Your task to perform on an android device: Toggle the flashlight Image 0: 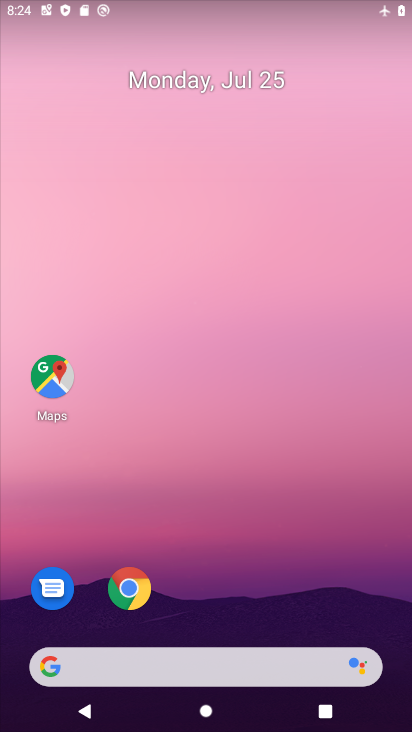
Step 0: drag from (124, 6) to (217, 427)
Your task to perform on an android device: Toggle the flashlight Image 1: 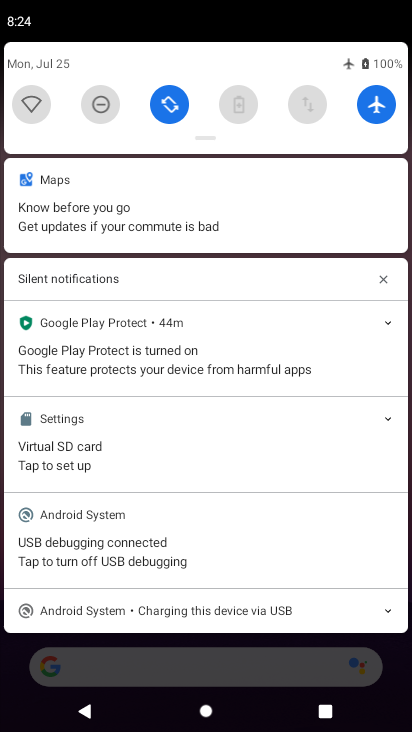
Step 1: drag from (287, 77) to (338, 455)
Your task to perform on an android device: Toggle the flashlight Image 2: 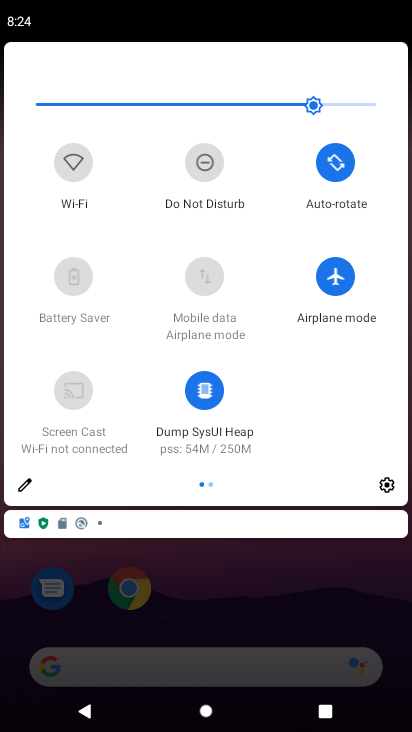
Step 2: click (329, 274)
Your task to perform on an android device: Toggle the flashlight Image 3: 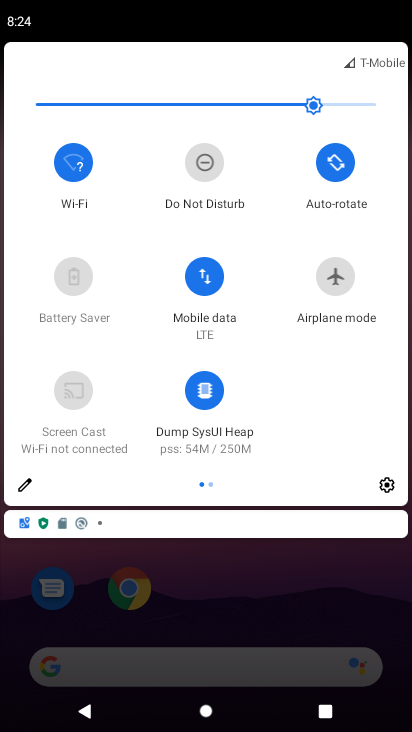
Step 3: drag from (289, 400) to (0, 454)
Your task to perform on an android device: Toggle the flashlight Image 4: 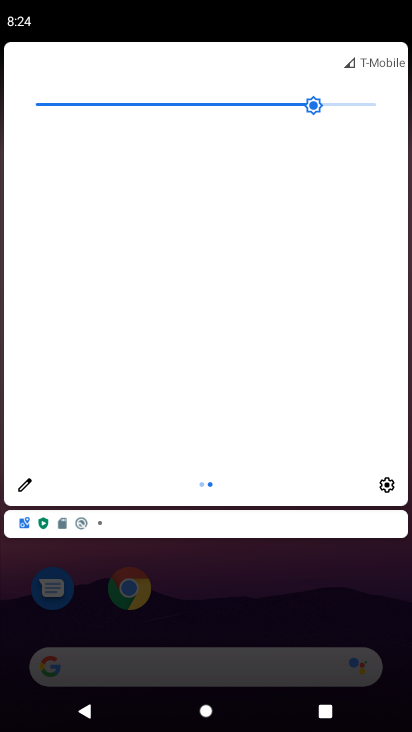
Step 4: click (27, 479)
Your task to perform on an android device: Toggle the flashlight Image 5: 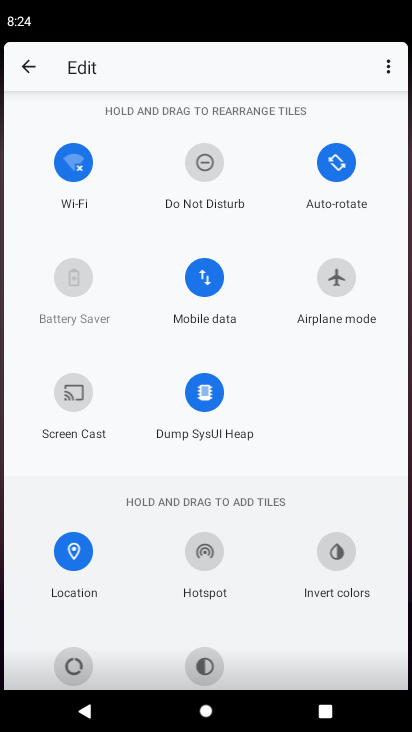
Step 5: task complete